Your task to perform on an android device: turn notification dots off Image 0: 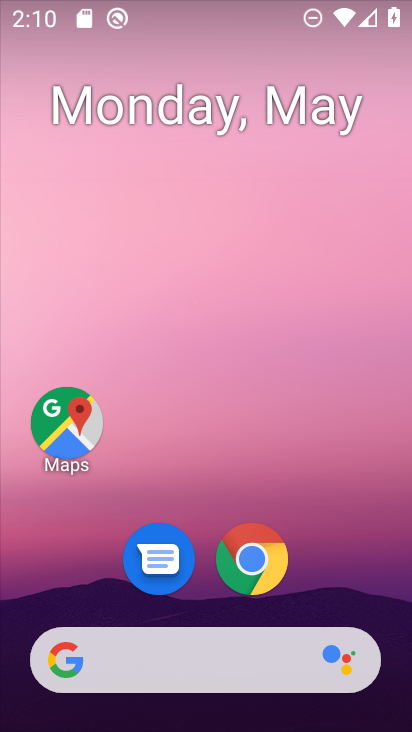
Step 0: drag from (359, 608) to (360, 11)
Your task to perform on an android device: turn notification dots off Image 1: 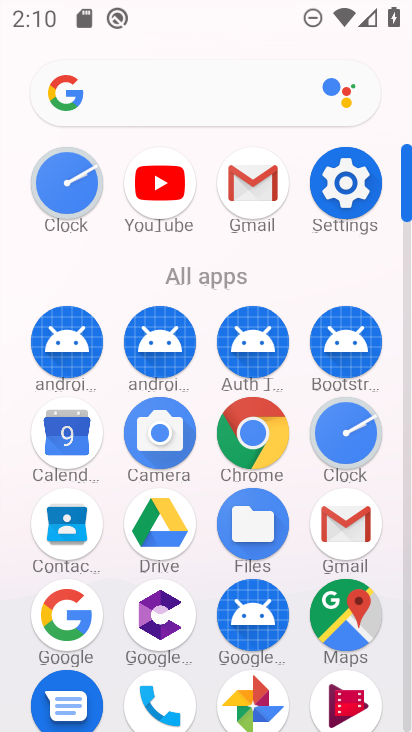
Step 1: click (345, 185)
Your task to perform on an android device: turn notification dots off Image 2: 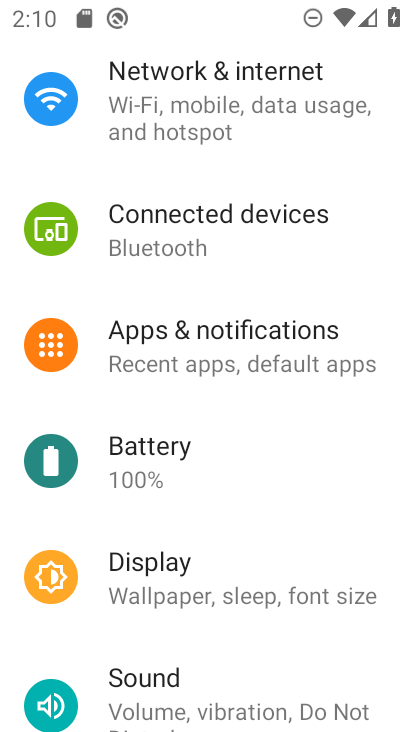
Step 2: click (246, 363)
Your task to perform on an android device: turn notification dots off Image 3: 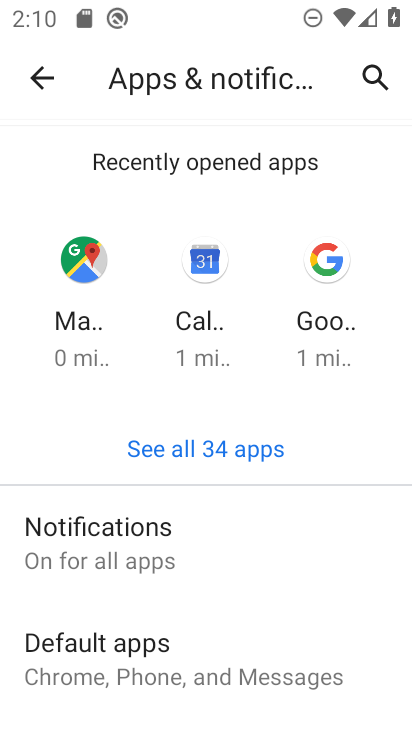
Step 3: click (118, 552)
Your task to perform on an android device: turn notification dots off Image 4: 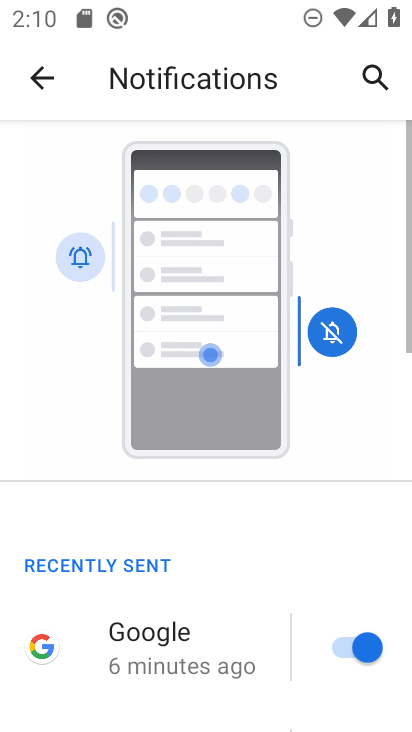
Step 4: drag from (229, 613) to (213, 105)
Your task to perform on an android device: turn notification dots off Image 5: 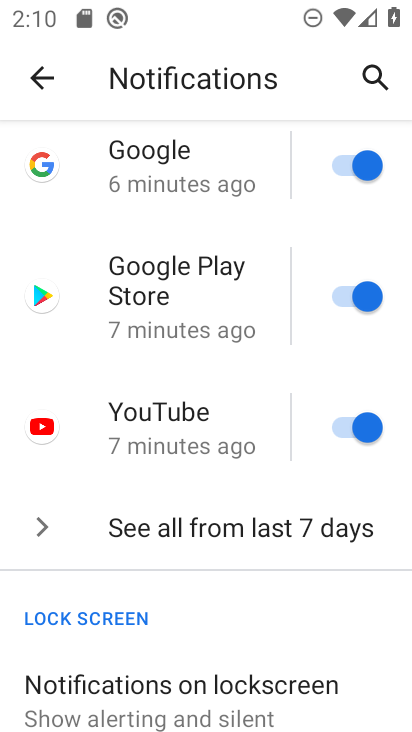
Step 5: drag from (175, 537) to (181, 214)
Your task to perform on an android device: turn notification dots off Image 6: 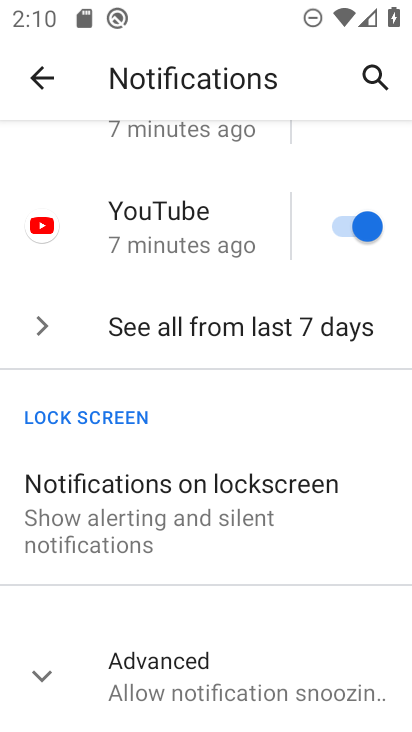
Step 6: click (44, 681)
Your task to perform on an android device: turn notification dots off Image 7: 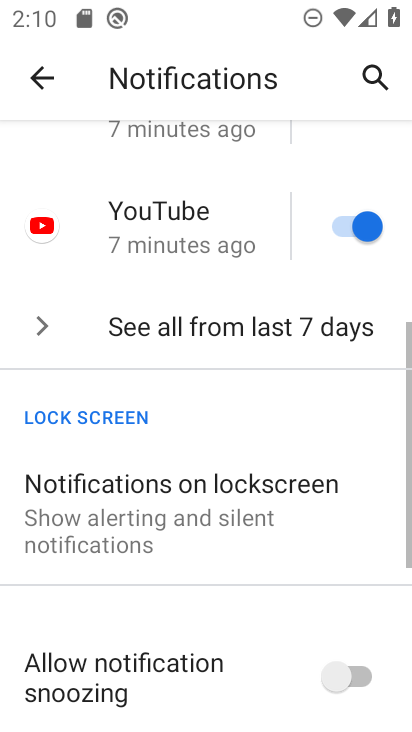
Step 7: drag from (180, 662) to (214, 145)
Your task to perform on an android device: turn notification dots off Image 8: 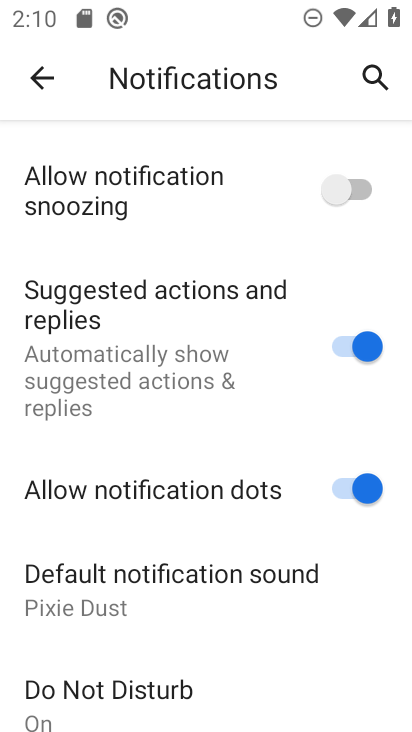
Step 8: click (353, 489)
Your task to perform on an android device: turn notification dots off Image 9: 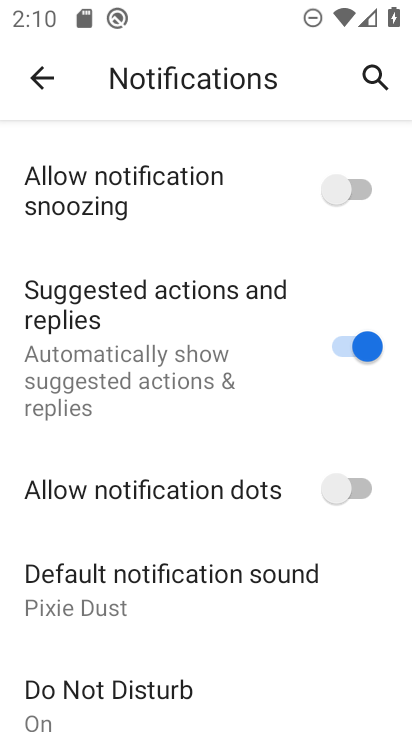
Step 9: task complete